Your task to perform on an android device: move a message to another label in the gmail app Image 0: 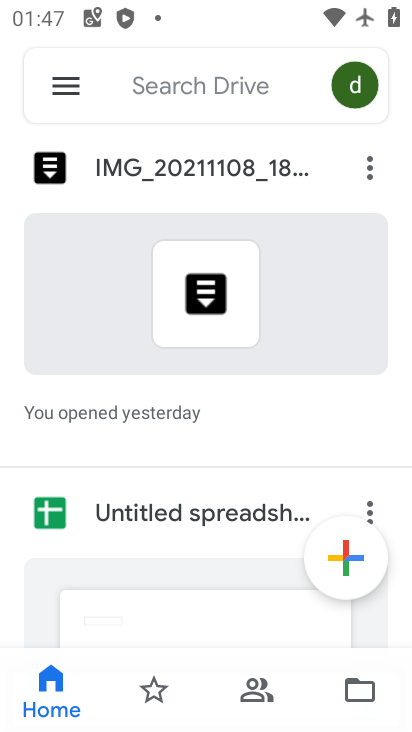
Step 0: press home button
Your task to perform on an android device: move a message to another label in the gmail app Image 1: 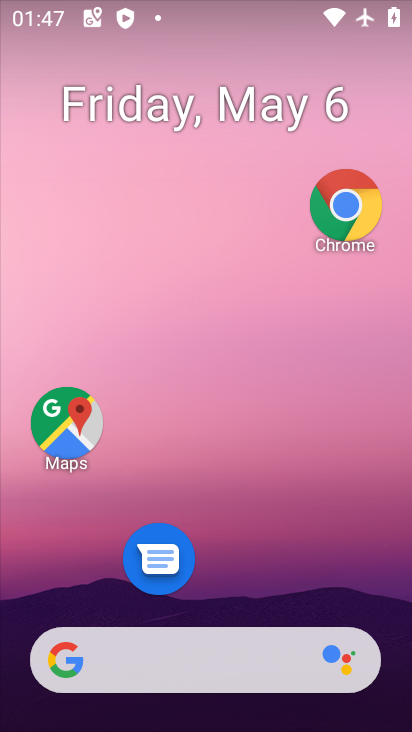
Step 1: drag from (120, 683) to (241, 157)
Your task to perform on an android device: move a message to another label in the gmail app Image 2: 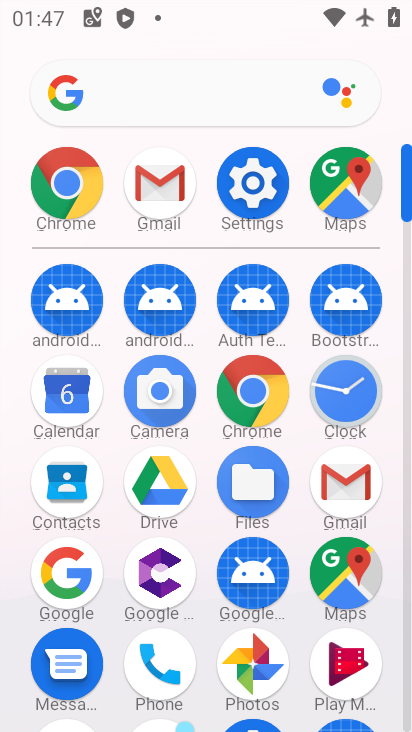
Step 2: click (148, 205)
Your task to perform on an android device: move a message to another label in the gmail app Image 3: 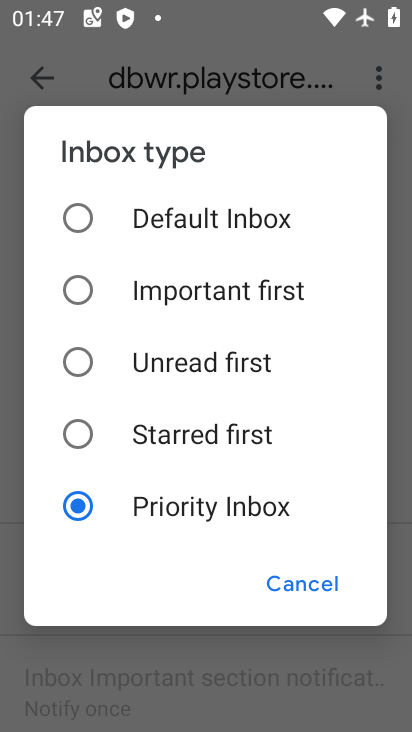
Step 3: click (43, 82)
Your task to perform on an android device: move a message to another label in the gmail app Image 4: 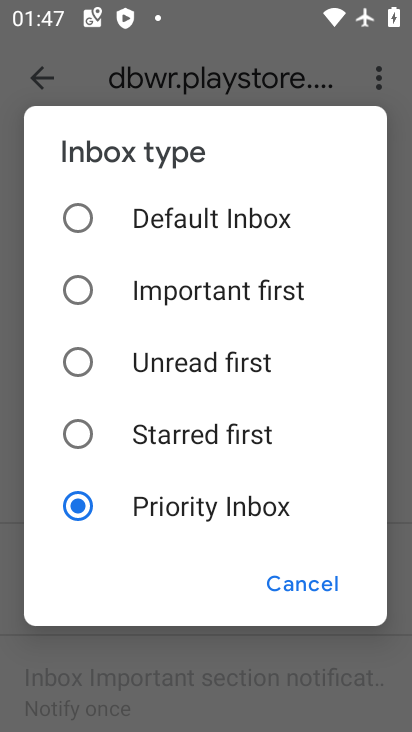
Step 4: click (297, 588)
Your task to perform on an android device: move a message to another label in the gmail app Image 5: 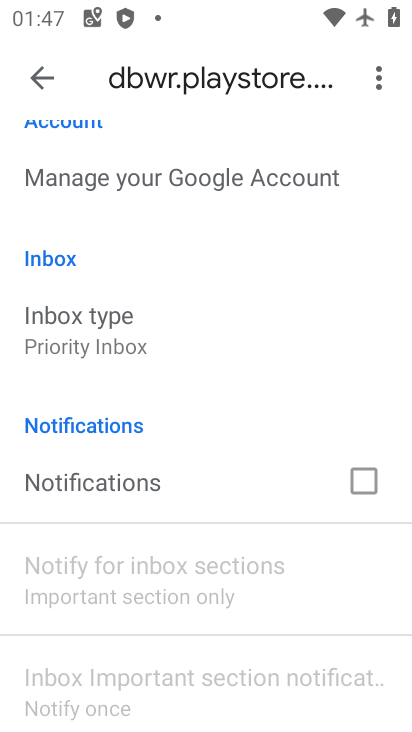
Step 5: click (32, 82)
Your task to perform on an android device: move a message to another label in the gmail app Image 6: 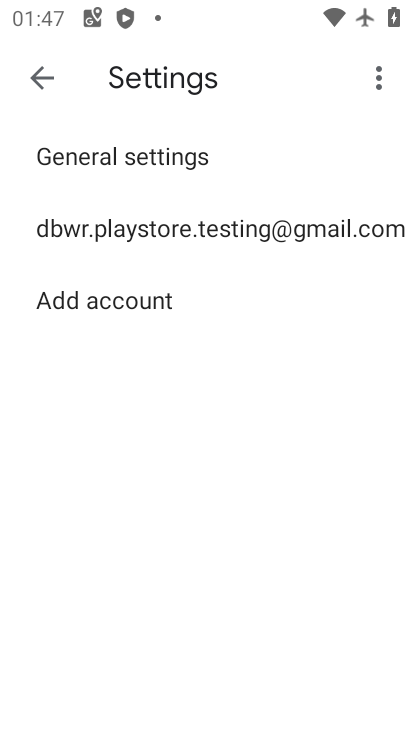
Step 6: click (32, 80)
Your task to perform on an android device: move a message to another label in the gmail app Image 7: 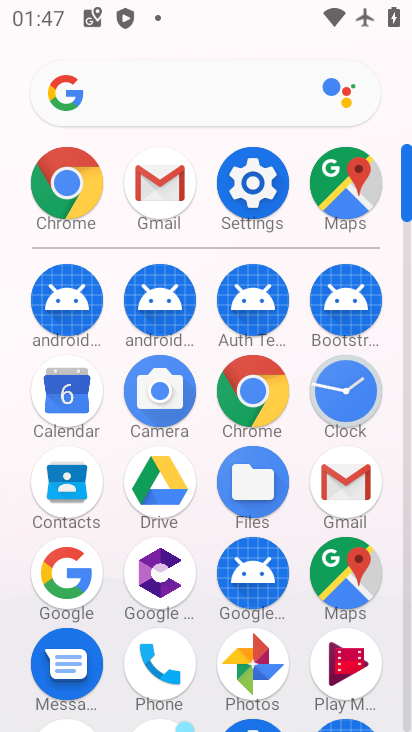
Step 7: click (153, 196)
Your task to perform on an android device: move a message to another label in the gmail app Image 8: 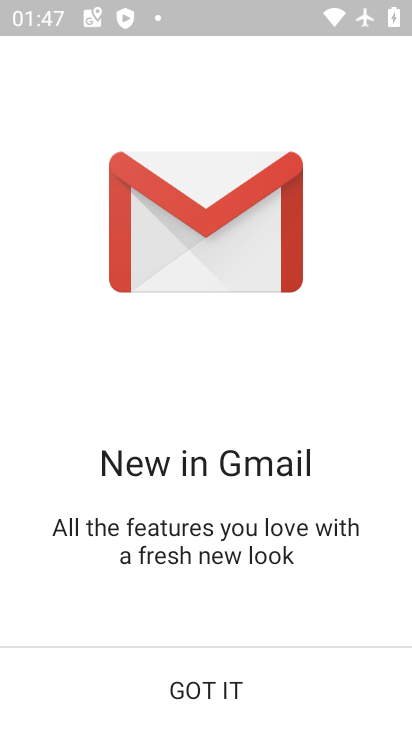
Step 8: click (227, 682)
Your task to perform on an android device: move a message to another label in the gmail app Image 9: 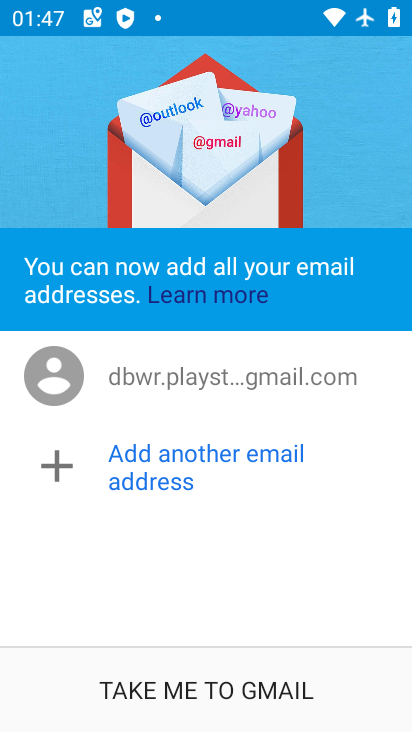
Step 9: click (227, 682)
Your task to perform on an android device: move a message to another label in the gmail app Image 10: 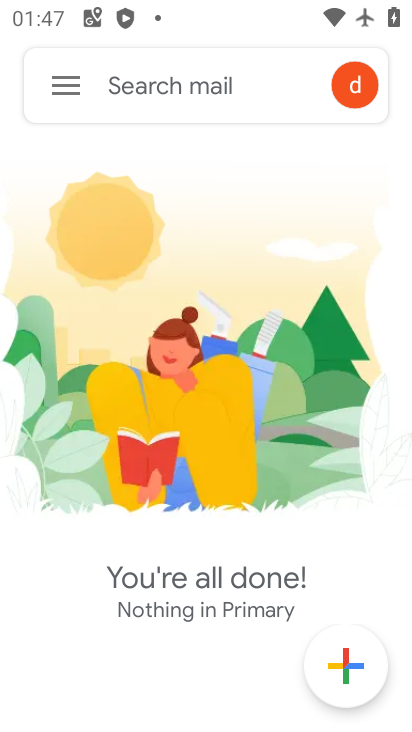
Step 10: click (68, 84)
Your task to perform on an android device: move a message to another label in the gmail app Image 11: 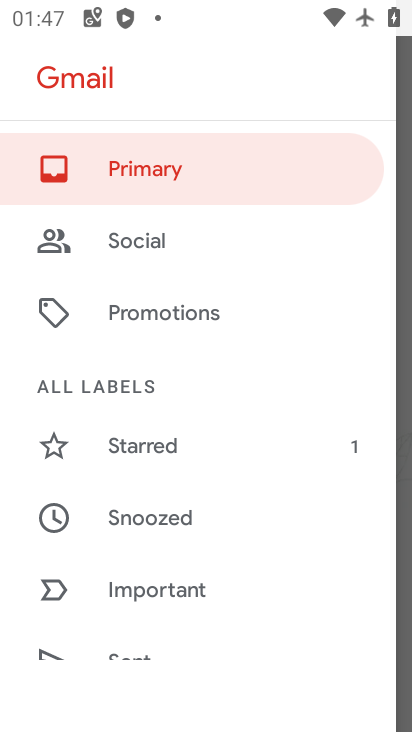
Step 11: drag from (265, 621) to (245, 252)
Your task to perform on an android device: move a message to another label in the gmail app Image 12: 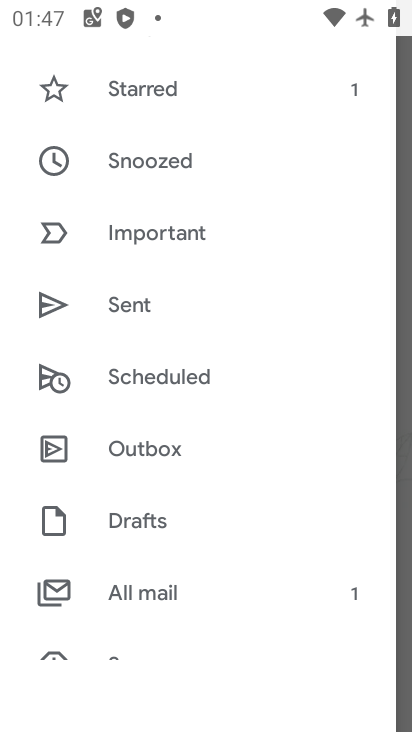
Step 12: click (143, 582)
Your task to perform on an android device: move a message to another label in the gmail app Image 13: 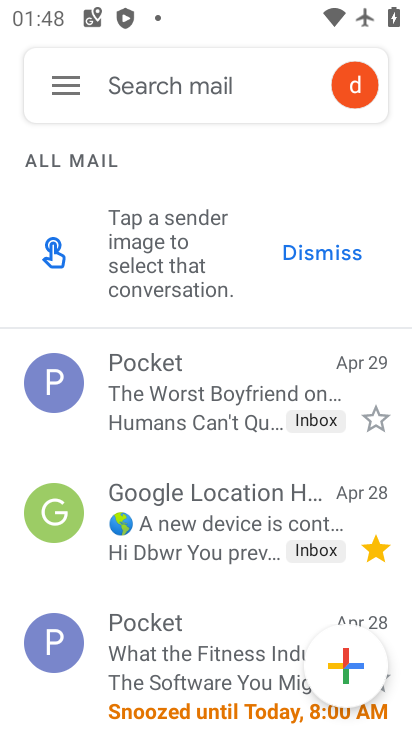
Step 13: drag from (199, 585) to (239, 317)
Your task to perform on an android device: move a message to another label in the gmail app Image 14: 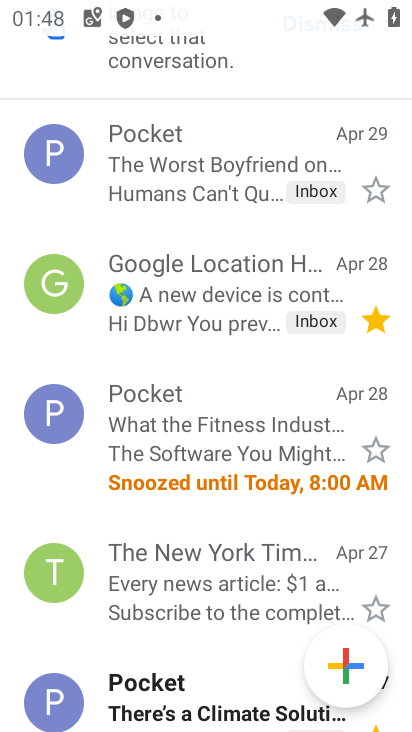
Step 14: click (224, 445)
Your task to perform on an android device: move a message to another label in the gmail app Image 15: 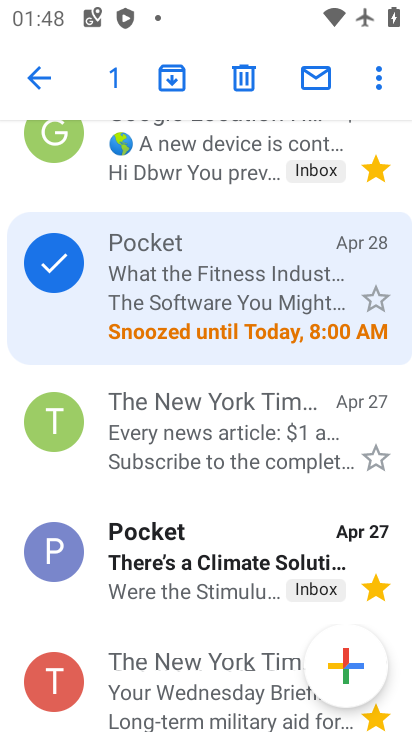
Step 15: click (211, 296)
Your task to perform on an android device: move a message to another label in the gmail app Image 16: 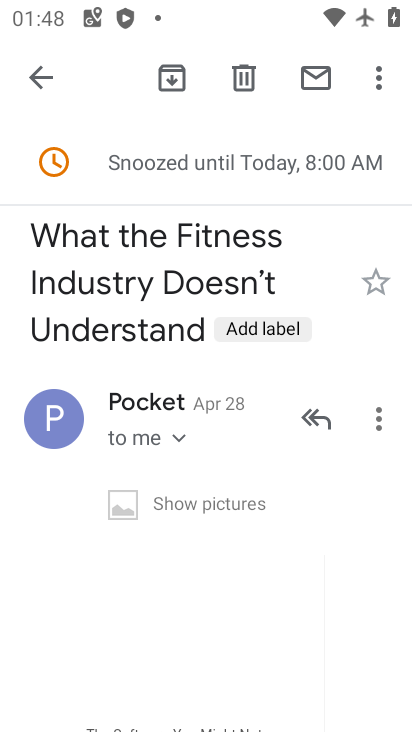
Step 16: click (246, 327)
Your task to perform on an android device: move a message to another label in the gmail app Image 17: 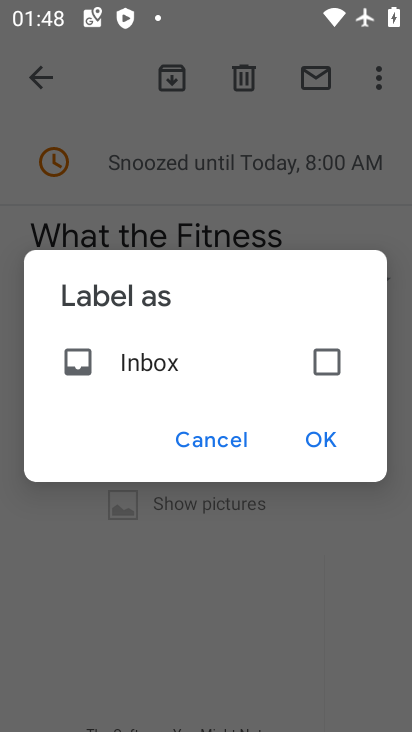
Step 17: click (330, 359)
Your task to perform on an android device: move a message to another label in the gmail app Image 18: 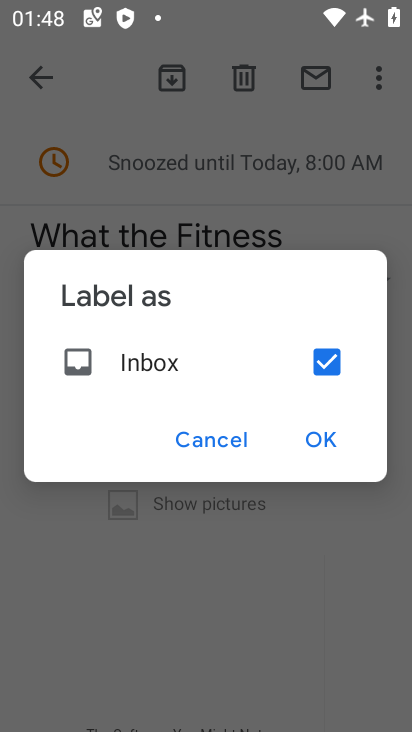
Step 18: click (326, 435)
Your task to perform on an android device: move a message to another label in the gmail app Image 19: 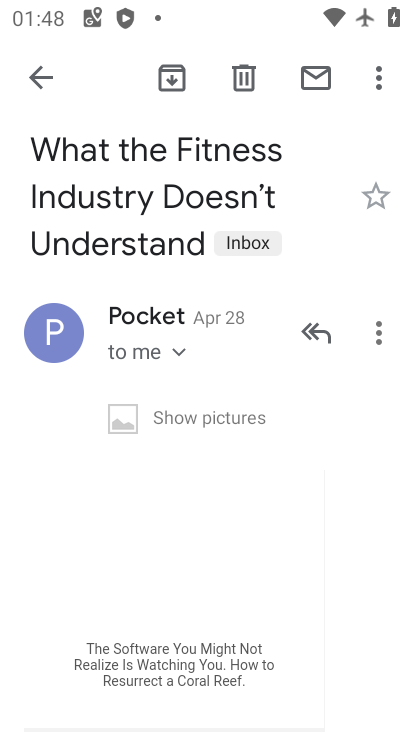
Step 19: task complete